Your task to perform on an android device: toggle notification dots Image 0: 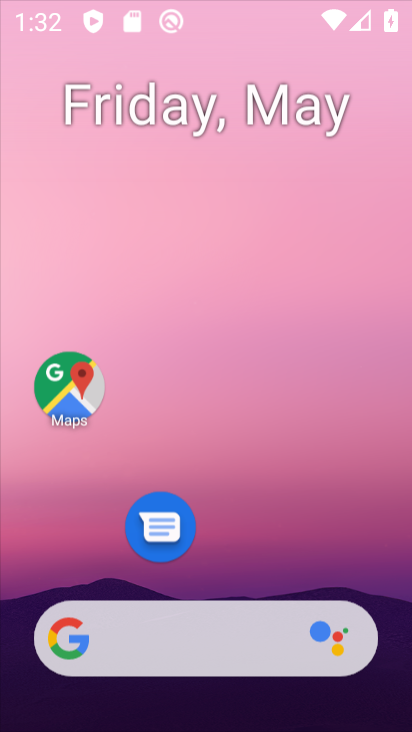
Step 0: click (234, 157)
Your task to perform on an android device: toggle notification dots Image 1: 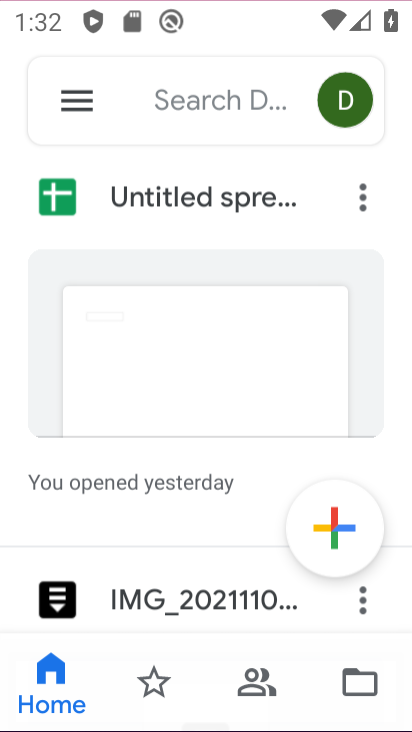
Step 1: drag from (240, 578) to (319, 151)
Your task to perform on an android device: toggle notification dots Image 2: 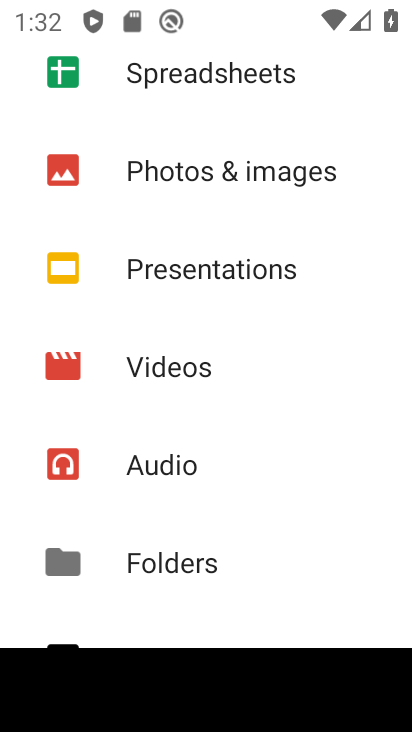
Step 2: press home button
Your task to perform on an android device: toggle notification dots Image 3: 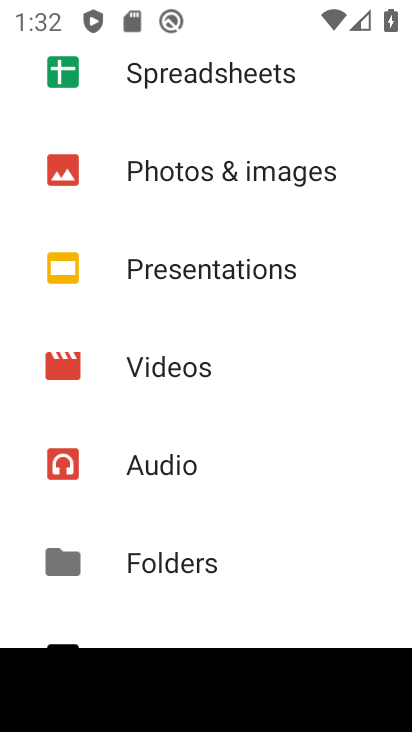
Step 3: press home button
Your task to perform on an android device: toggle notification dots Image 4: 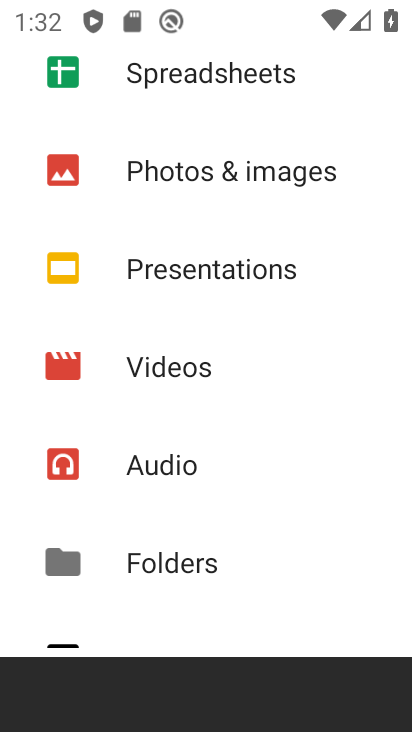
Step 4: drag from (240, 355) to (244, 192)
Your task to perform on an android device: toggle notification dots Image 5: 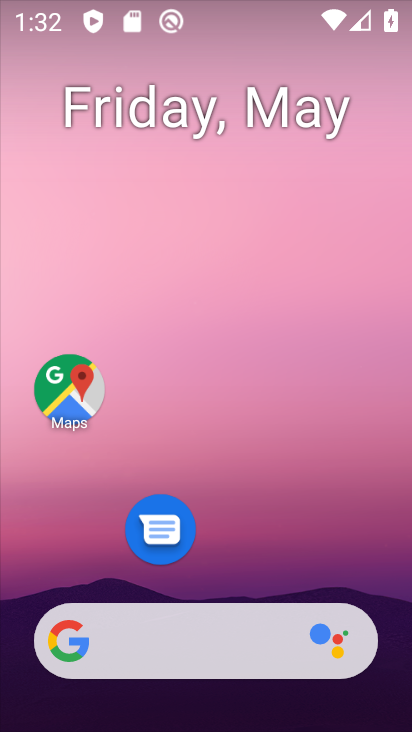
Step 5: drag from (204, 561) to (269, 3)
Your task to perform on an android device: toggle notification dots Image 6: 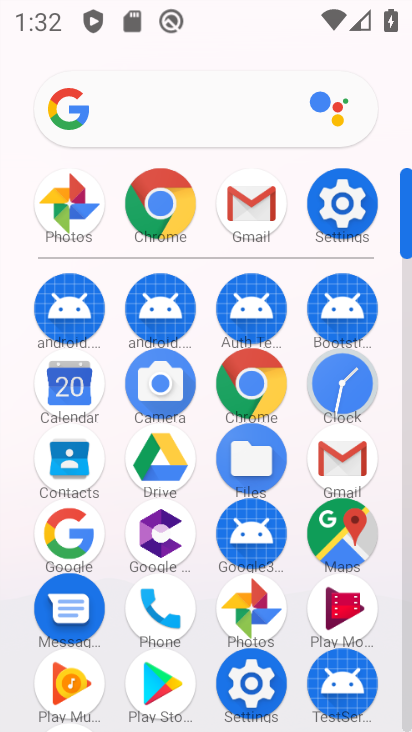
Step 6: click (348, 195)
Your task to perform on an android device: toggle notification dots Image 7: 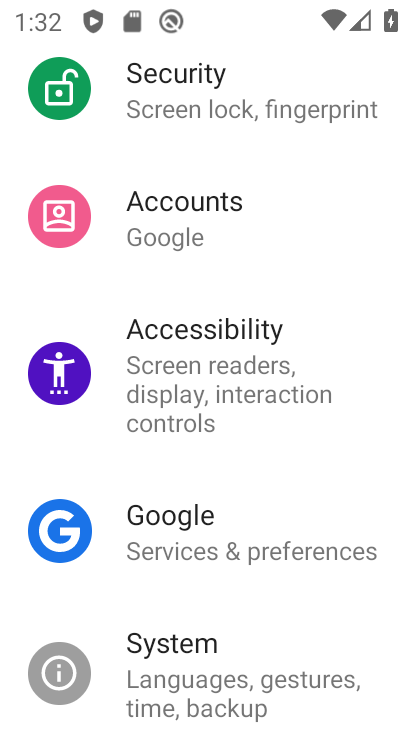
Step 7: drag from (198, 134) to (245, 690)
Your task to perform on an android device: toggle notification dots Image 8: 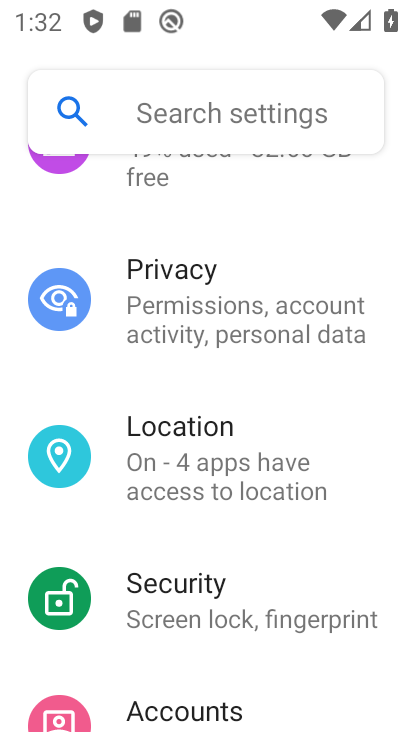
Step 8: drag from (264, 259) to (304, 718)
Your task to perform on an android device: toggle notification dots Image 9: 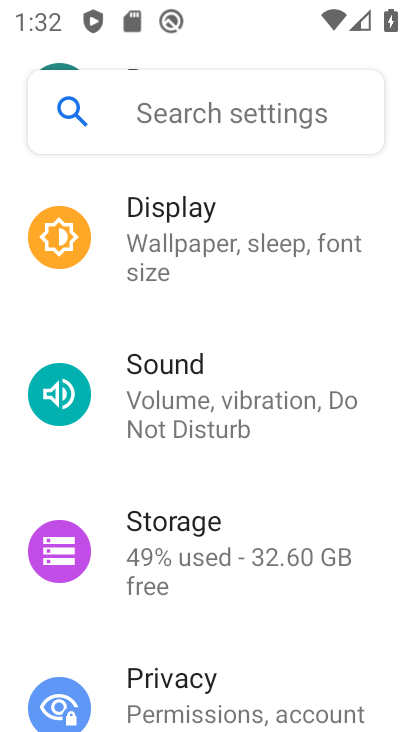
Step 9: drag from (214, 216) to (278, 731)
Your task to perform on an android device: toggle notification dots Image 10: 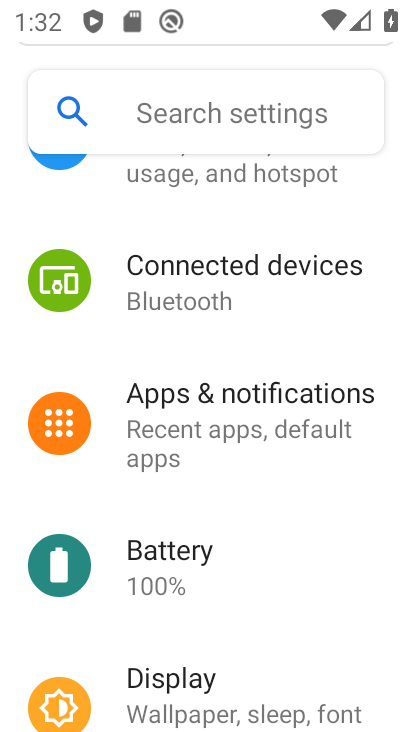
Step 10: click (191, 425)
Your task to perform on an android device: toggle notification dots Image 11: 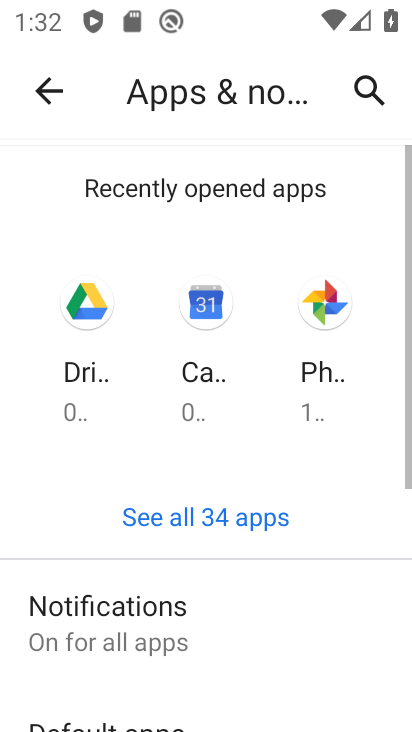
Step 11: drag from (218, 674) to (301, 200)
Your task to perform on an android device: toggle notification dots Image 12: 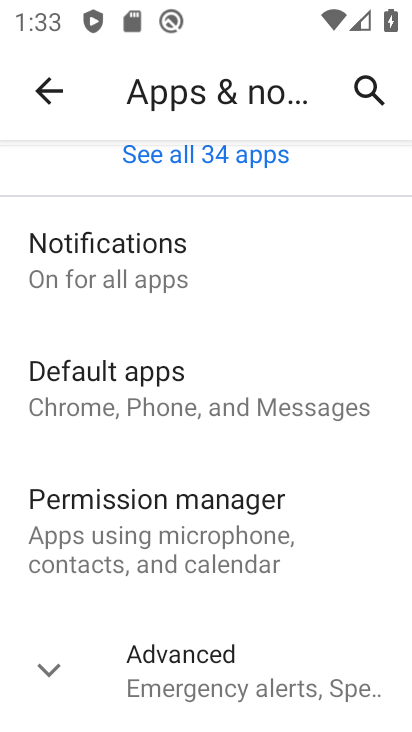
Step 12: click (160, 289)
Your task to perform on an android device: toggle notification dots Image 13: 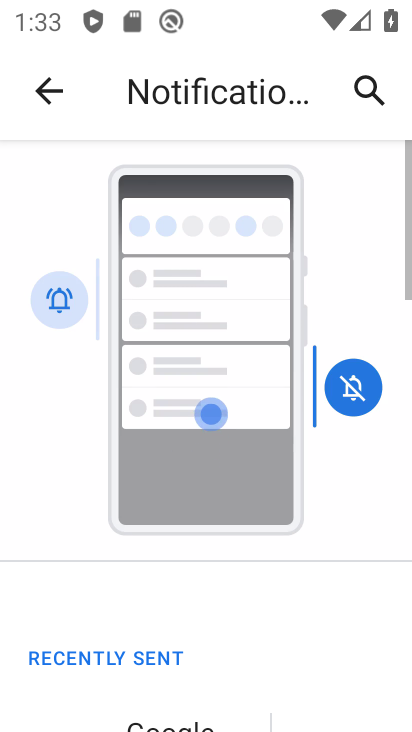
Step 13: drag from (230, 586) to (331, 168)
Your task to perform on an android device: toggle notification dots Image 14: 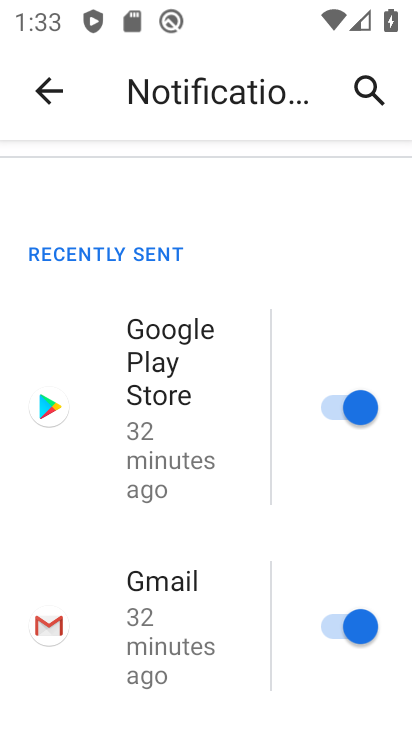
Step 14: drag from (269, 653) to (308, 302)
Your task to perform on an android device: toggle notification dots Image 15: 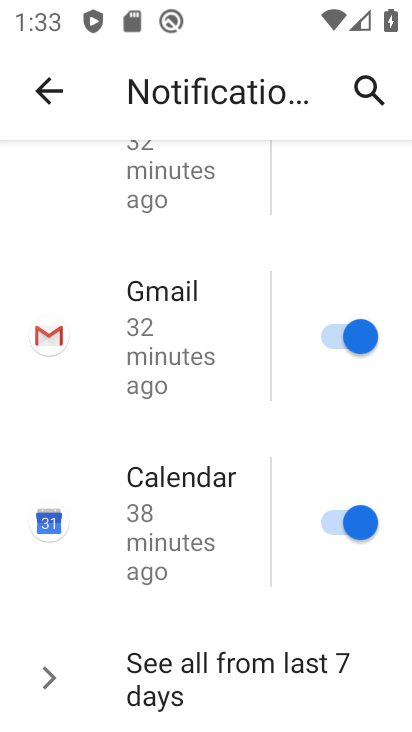
Step 15: drag from (261, 608) to (275, 348)
Your task to perform on an android device: toggle notification dots Image 16: 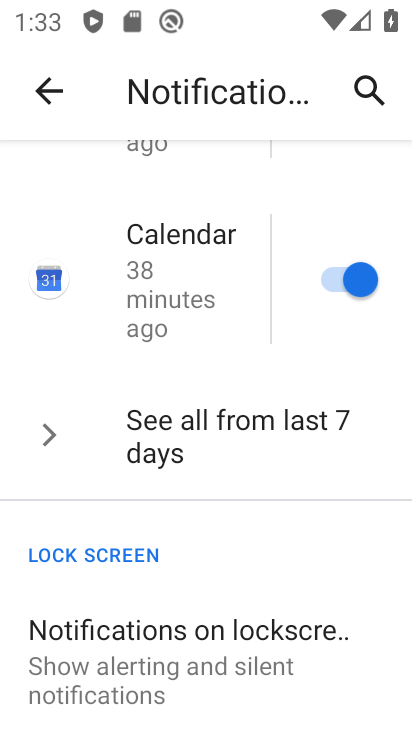
Step 16: drag from (210, 612) to (276, 292)
Your task to perform on an android device: toggle notification dots Image 17: 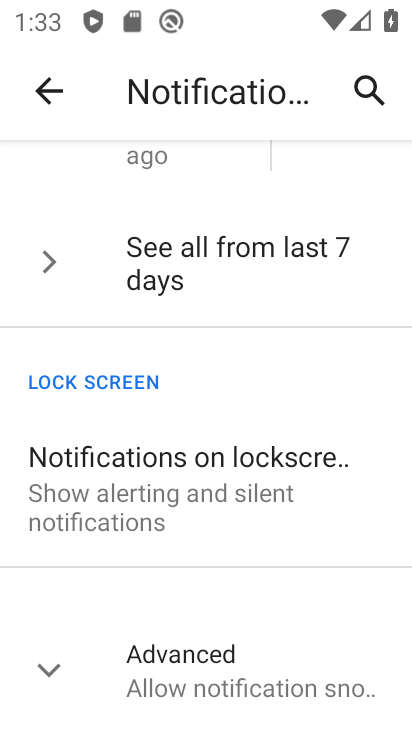
Step 17: click (171, 665)
Your task to perform on an android device: toggle notification dots Image 18: 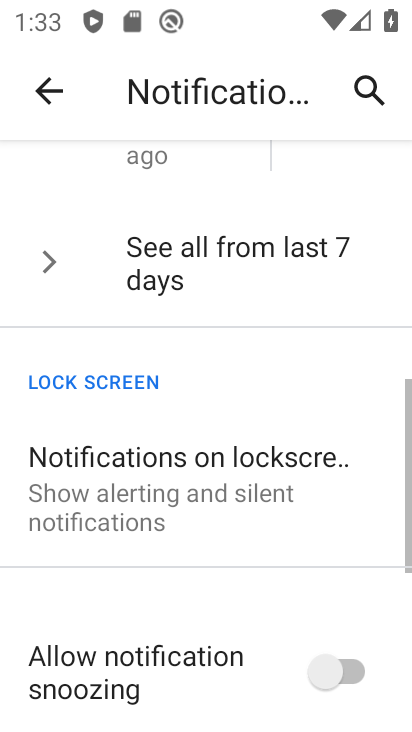
Step 18: drag from (219, 595) to (321, 214)
Your task to perform on an android device: toggle notification dots Image 19: 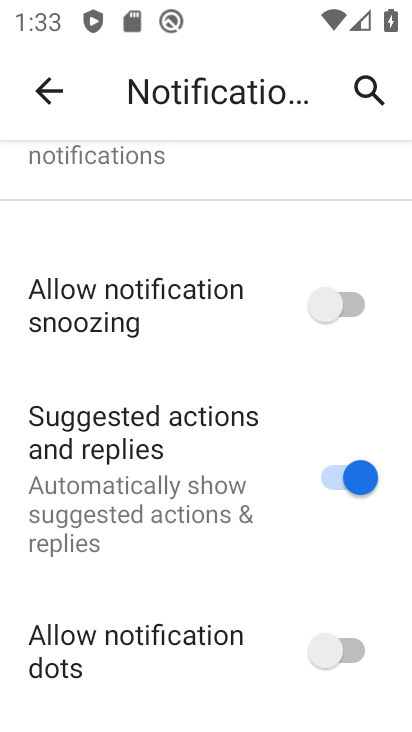
Step 19: click (331, 647)
Your task to perform on an android device: toggle notification dots Image 20: 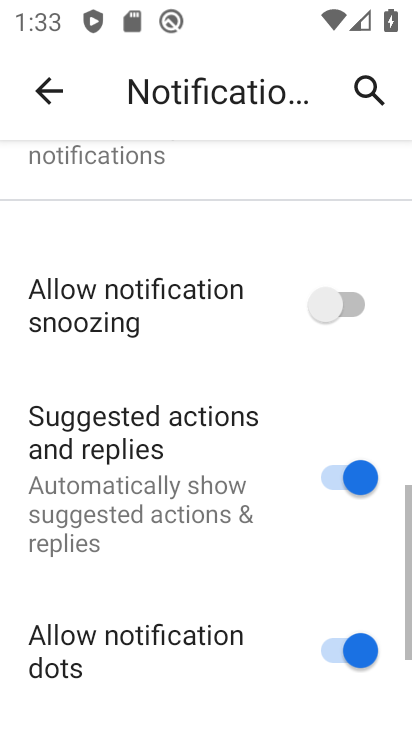
Step 20: task complete